Your task to perform on an android device: Open privacy settings Image 0: 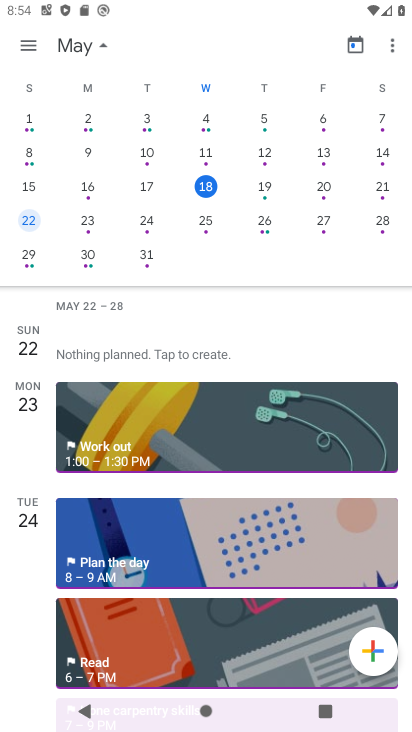
Step 0: press home button
Your task to perform on an android device: Open privacy settings Image 1: 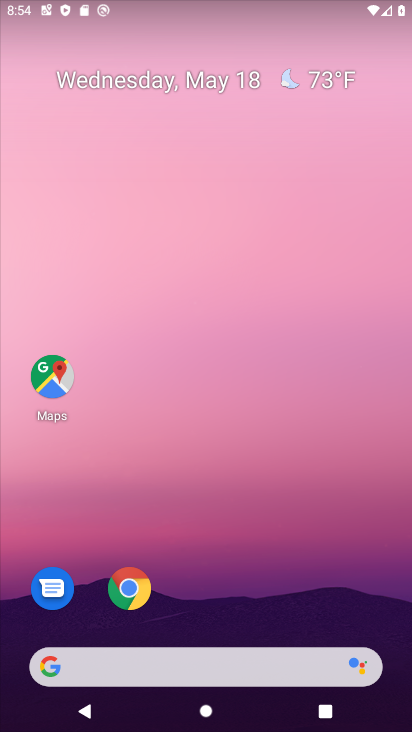
Step 1: drag from (348, 608) to (328, 78)
Your task to perform on an android device: Open privacy settings Image 2: 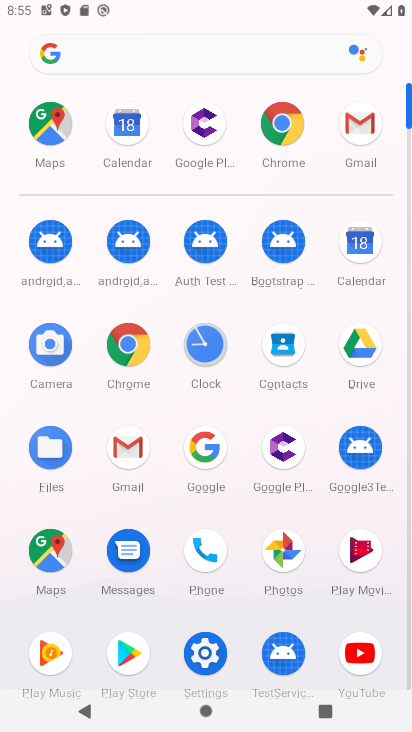
Step 2: click (222, 643)
Your task to perform on an android device: Open privacy settings Image 3: 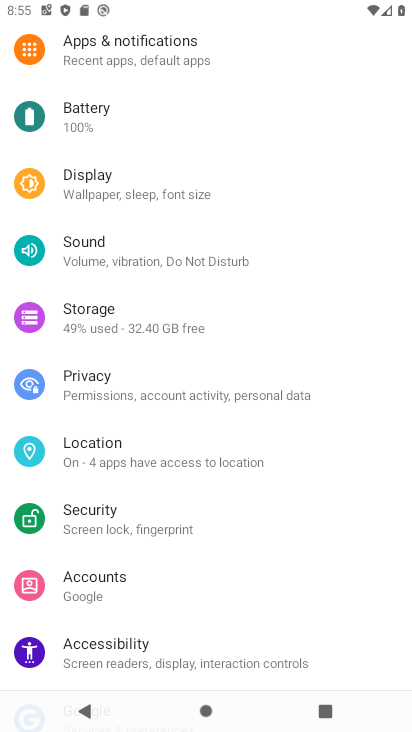
Step 3: click (161, 383)
Your task to perform on an android device: Open privacy settings Image 4: 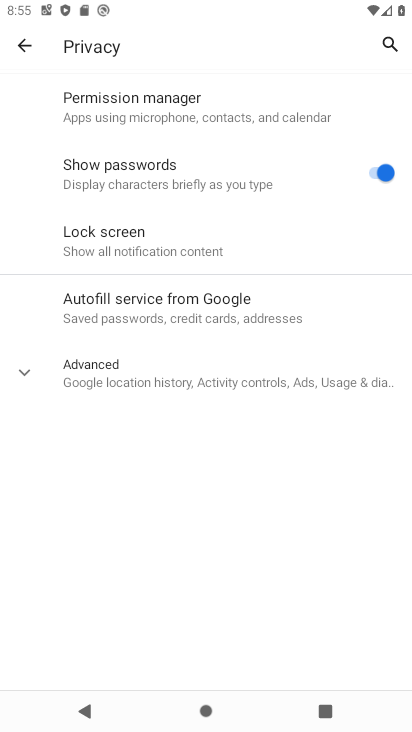
Step 4: task complete